Your task to perform on an android device: Search for "apple airpods pro" on walmart.com, select the first entry, and add it to the cart. Image 0: 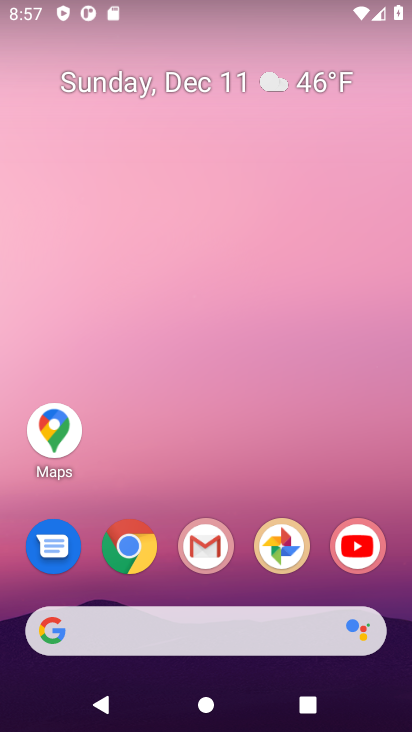
Step 0: click (132, 549)
Your task to perform on an android device: Search for "apple airpods pro" on walmart.com, select the first entry, and add it to the cart. Image 1: 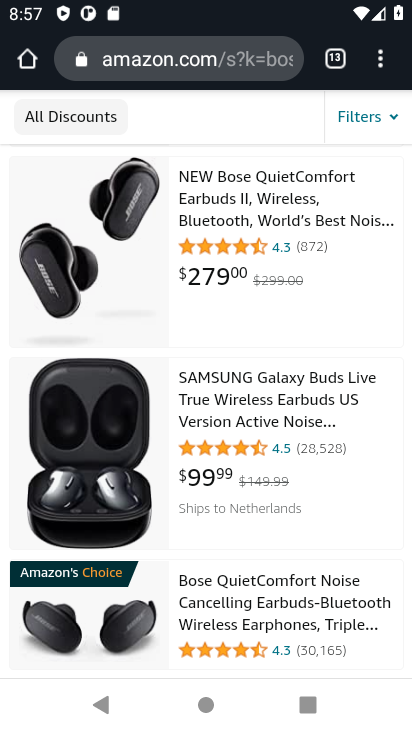
Step 1: click (154, 68)
Your task to perform on an android device: Search for "apple airpods pro" on walmart.com, select the first entry, and add it to the cart. Image 2: 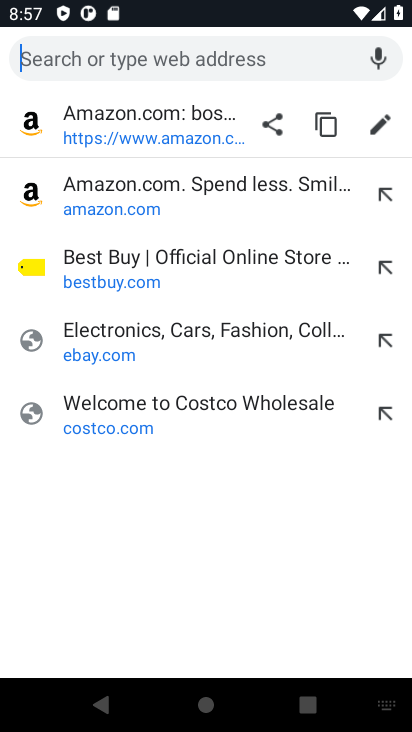
Step 2: type "walmart.com"
Your task to perform on an android device: Search for "apple airpods pro" on walmart.com, select the first entry, and add it to the cart. Image 3: 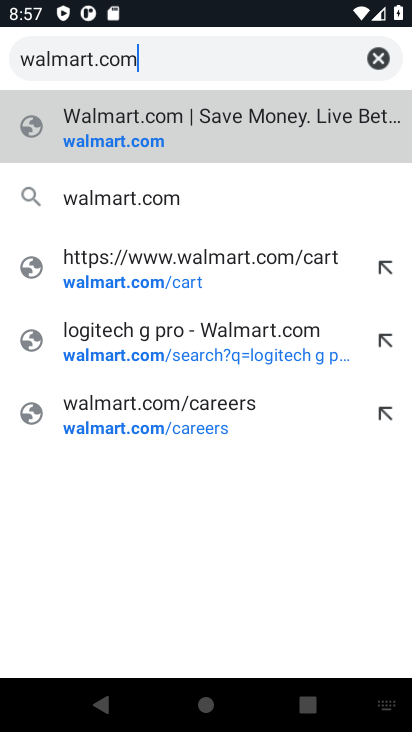
Step 3: click (105, 148)
Your task to perform on an android device: Search for "apple airpods pro" on walmart.com, select the first entry, and add it to the cart. Image 4: 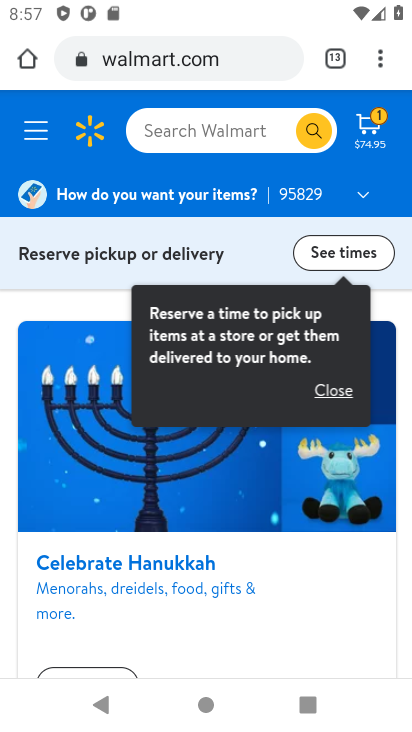
Step 4: click (165, 126)
Your task to perform on an android device: Search for "apple airpods pro" on walmart.com, select the first entry, and add it to the cart. Image 5: 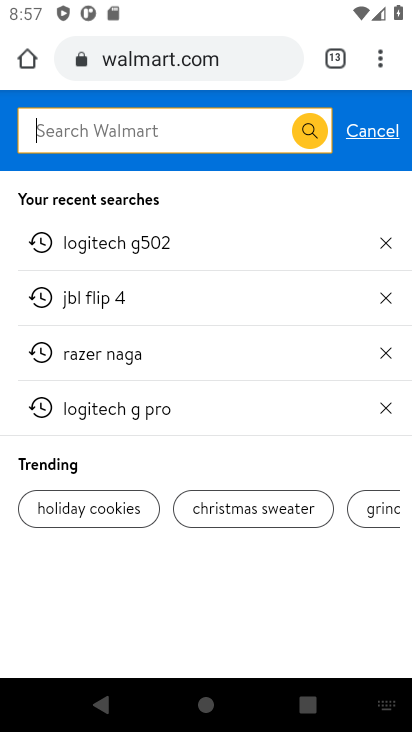
Step 5: type "apple airpods pro"
Your task to perform on an android device: Search for "apple airpods pro" on walmart.com, select the first entry, and add it to the cart. Image 6: 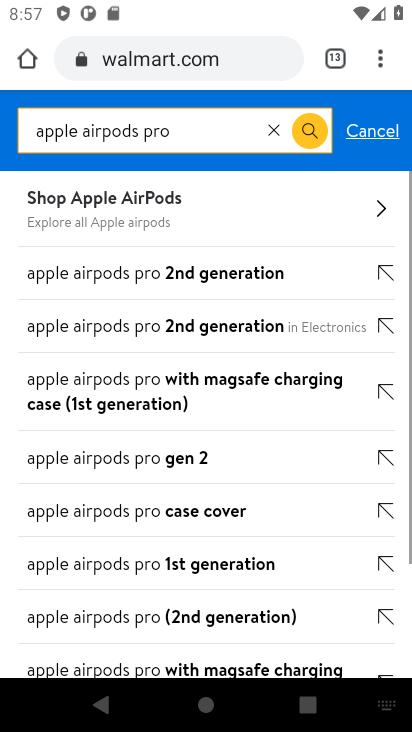
Step 6: click (311, 137)
Your task to perform on an android device: Search for "apple airpods pro" on walmart.com, select the first entry, and add it to the cart. Image 7: 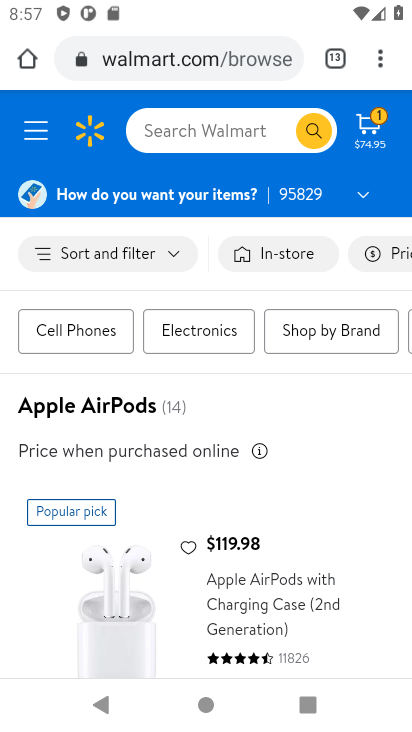
Step 7: drag from (168, 565) to (184, 311)
Your task to perform on an android device: Search for "apple airpods pro" on walmart.com, select the first entry, and add it to the cart. Image 8: 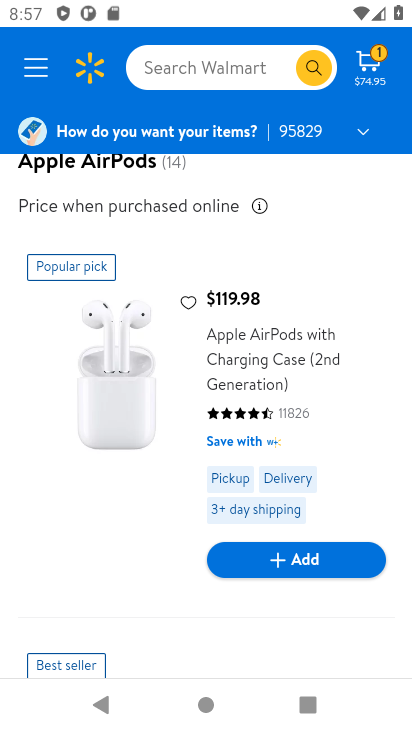
Step 8: drag from (184, 311) to (198, 607)
Your task to perform on an android device: Search for "apple airpods pro" on walmart.com, select the first entry, and add it to the cart. Image 9: 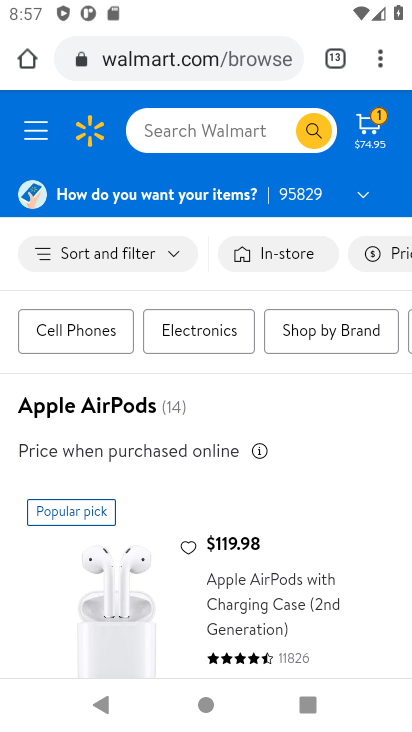
Step 9: click (256, 132)
Your task to perform on an android device: Search for "apple airpods pro" on walmart.com, select the first entry, and add it to the cart. Image 10: 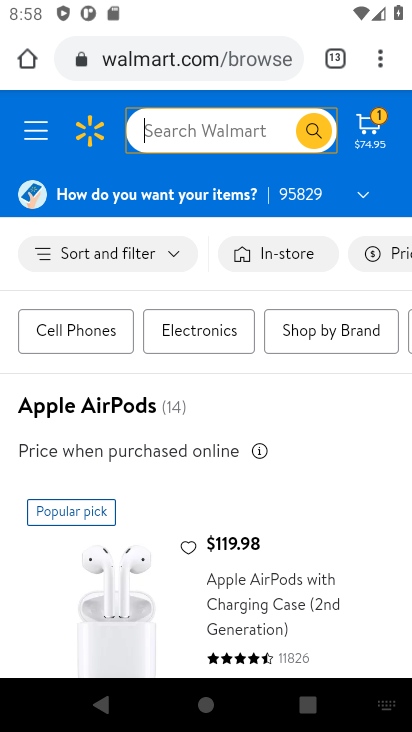
Step 10: type "apple airpods pro"
Your task to perform on an android device: Search for "apple airpods pro" on walmart.com, select the first entry, and add it to the cart. Image 11: 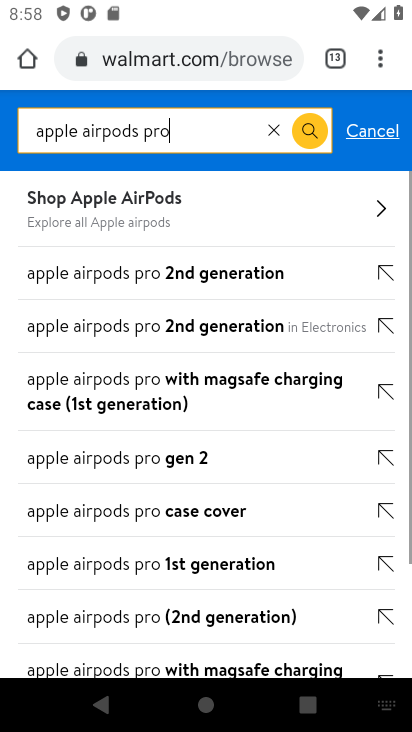
Step 11: click (96, 569)
Your task to perform on an android device: Search for "apple airpods pro" on walmart.com, select the first entry, and add it to the cart. Image 12: 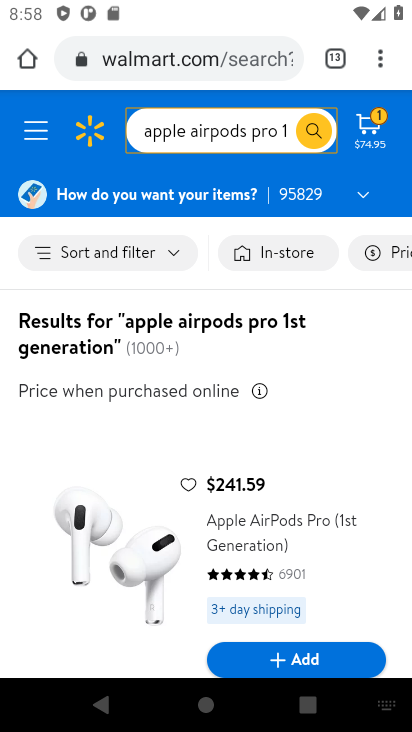
Step 12: drag from (148, 594) to (144, 347)
Your task to perform on an android device: Search for "apple airpods pro" on walmart.com, select the first entry, and add it to the cart. Image 13: 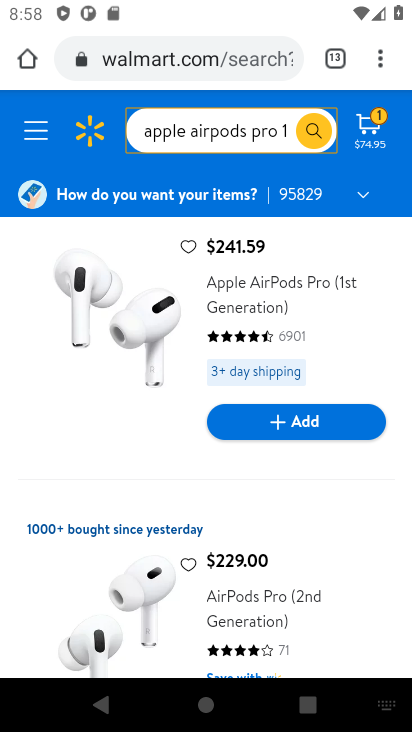
Step 13: click (311, 426)
Your task to perform on an android device: Search for "apple airpods pro" on walmart.com, select the first entry, and add it to the cart. Image 14: 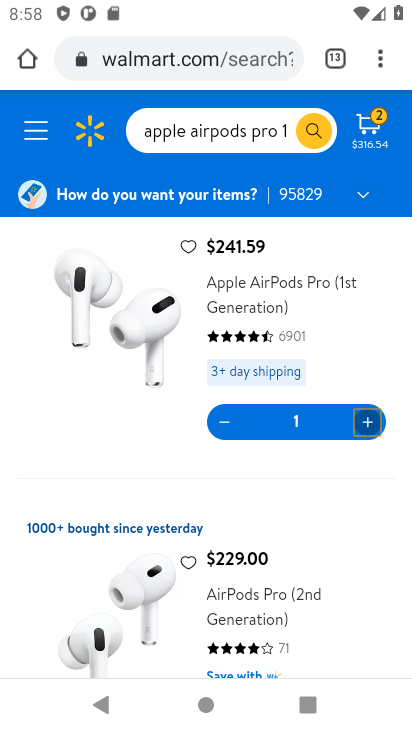
Step 14: task complete